Your task to perform on an android device: Open maps Image 0: 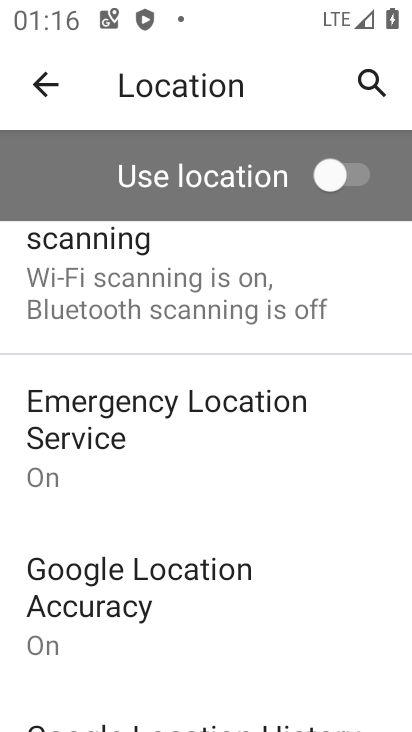
Step 0: press home button
Your task to perform on an android device: Open maps Image 1: 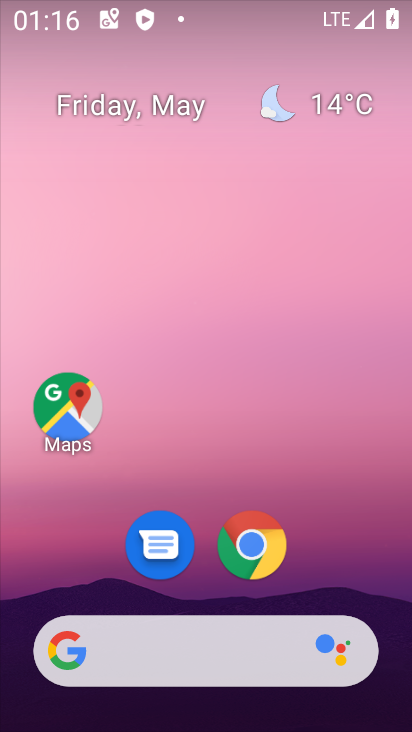
Step 1: drag from (273, 610) to (226, 294)
Your task to perform on an android device: Open maps Image 2: 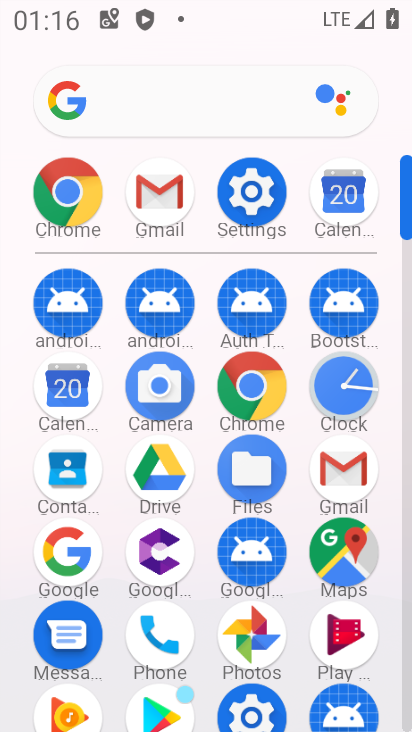
Step 2: click (358, 564)
Your task to perform on an android device: Open maps Image 3: 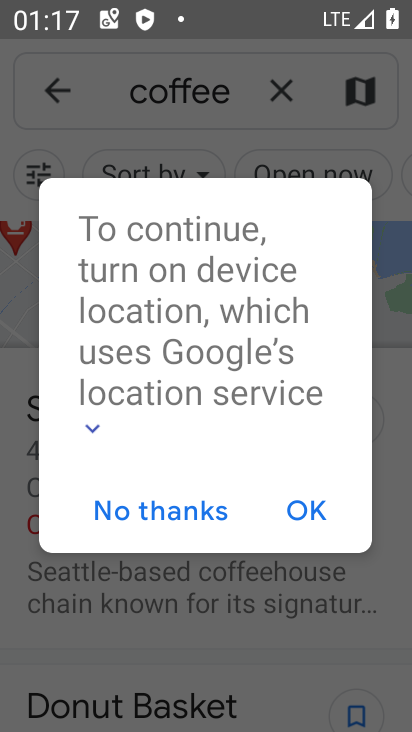
Step 3: task complete